Your task to perform on an android device: Open calendar and show me the second week of next month Image 0: 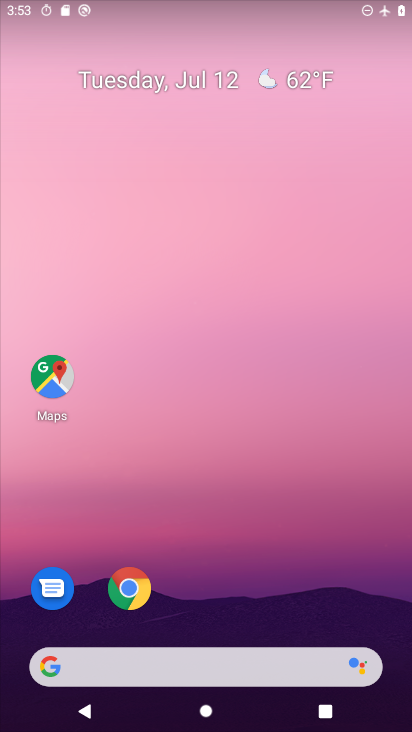
Step 0: drag from (204, 539) to (273, 0)
Your task to perform on an android device: Open calendar and show me the second week of next month Image 1: 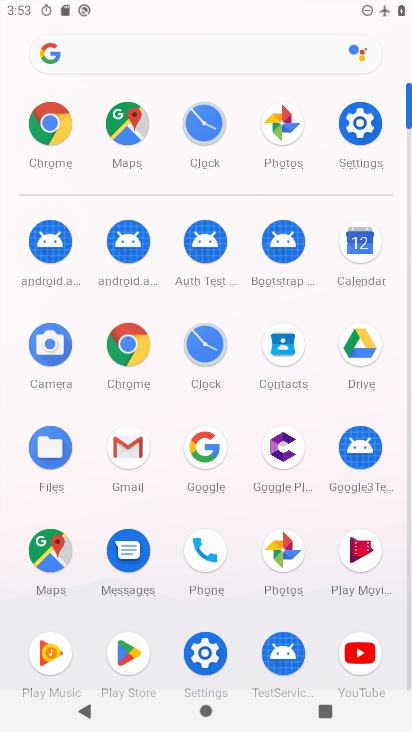
Step 1: click (373, 260)
Your task to perform on an android device: Open calendar and show me the second week of next month Image 2: 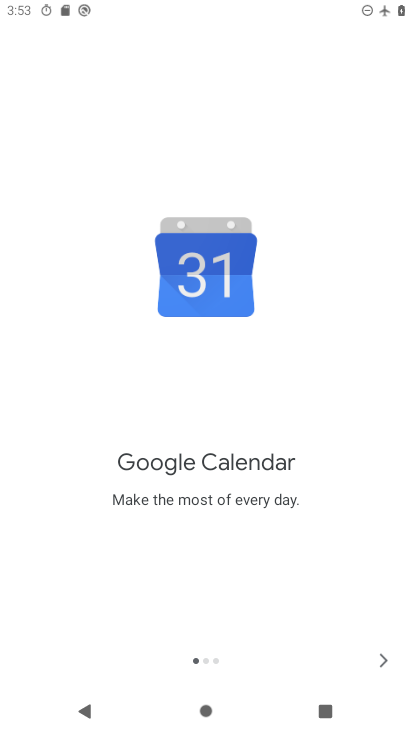
Step 2: click (382, 663)
Your task to perform on an android device: Open calendar and show me the second week of next month Image 3: 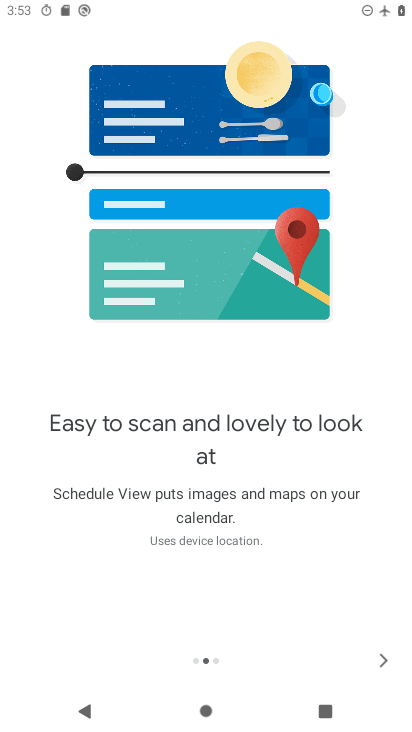
Step 3: click (381, 662)
Your task to perform on an android device: Open calendar and show me the second week of next month Image 4: 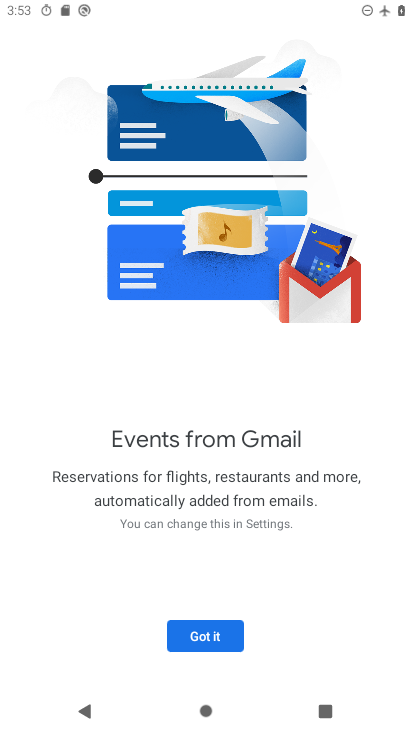
Step 4: click (216, 629)
Your task to perform on an android device: Open calendar and show me the second week of next month Image 5: 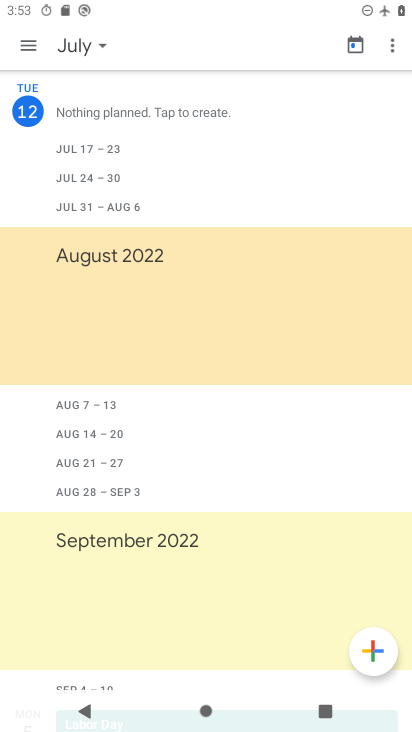
Step 5: click (27, 49)
Your task to perform on an android device: Open calendar and show me the second week of next month Image 6: 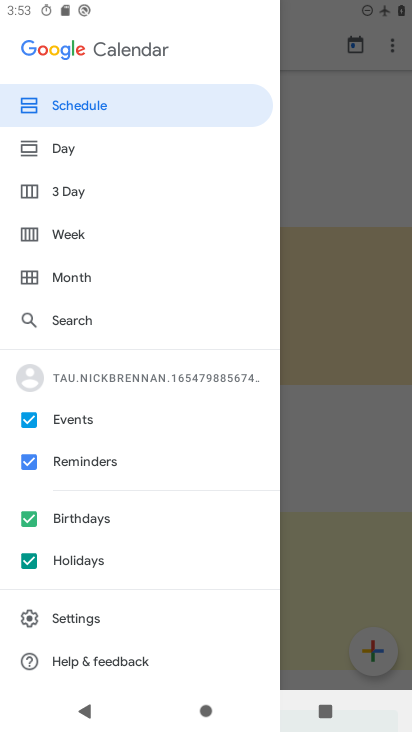
Step 6: click (80, 241)
Your task to perform on an android device: Open calendar and show me the second week of next month Image 7: 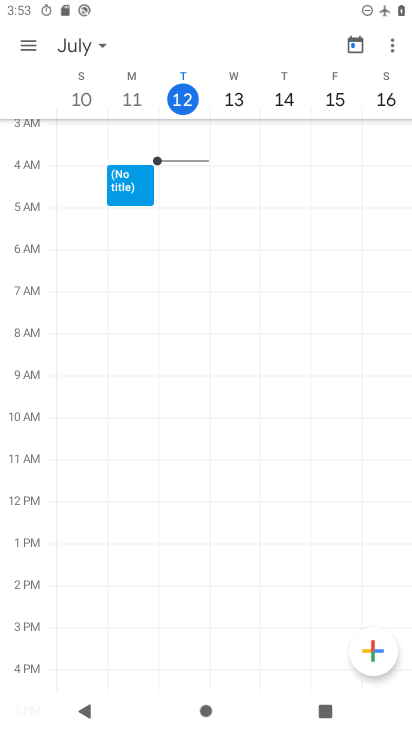
Step 7: task complete